Your task to perform on an android device: Open Google Chrome Image 0: 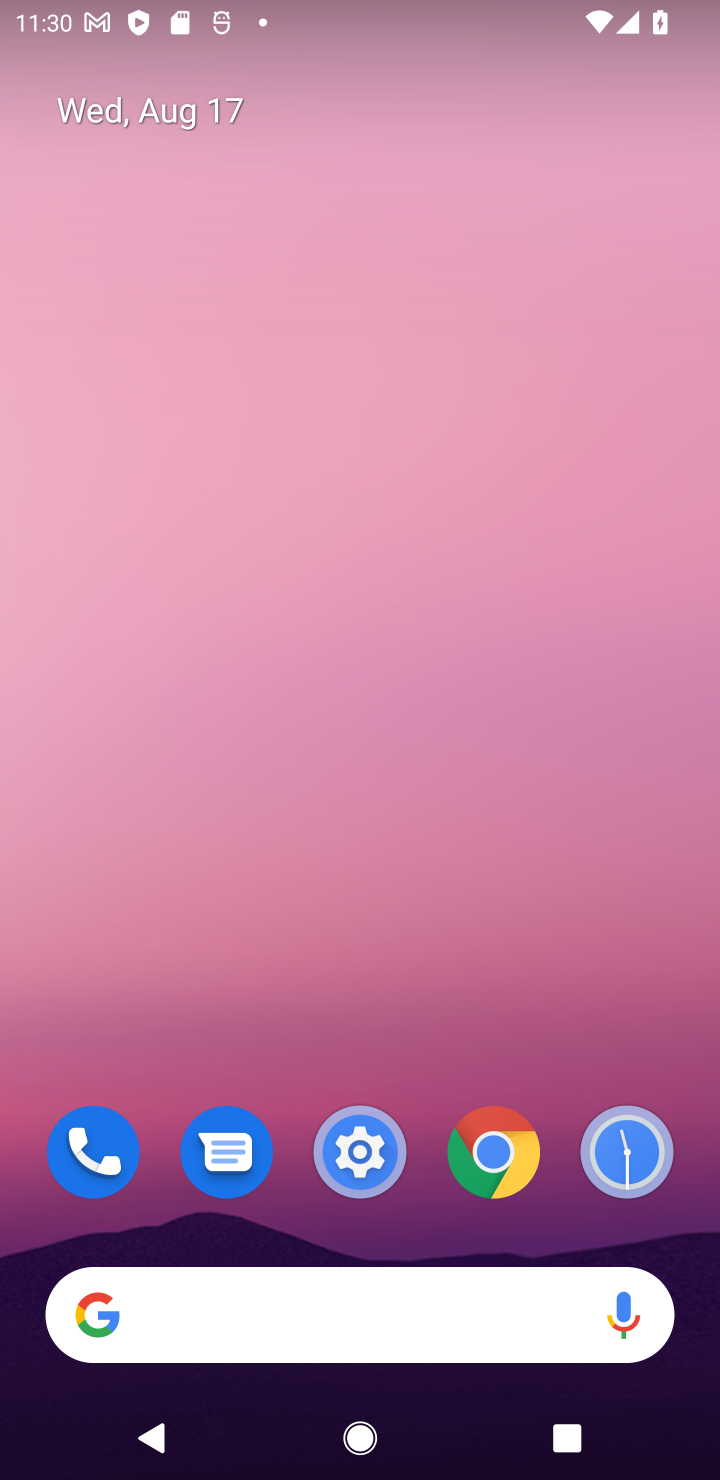
Step 0: drag from (572, 1117) to (405, 38)
Your task to perform on an android device: Open Google Chrome Image 1: 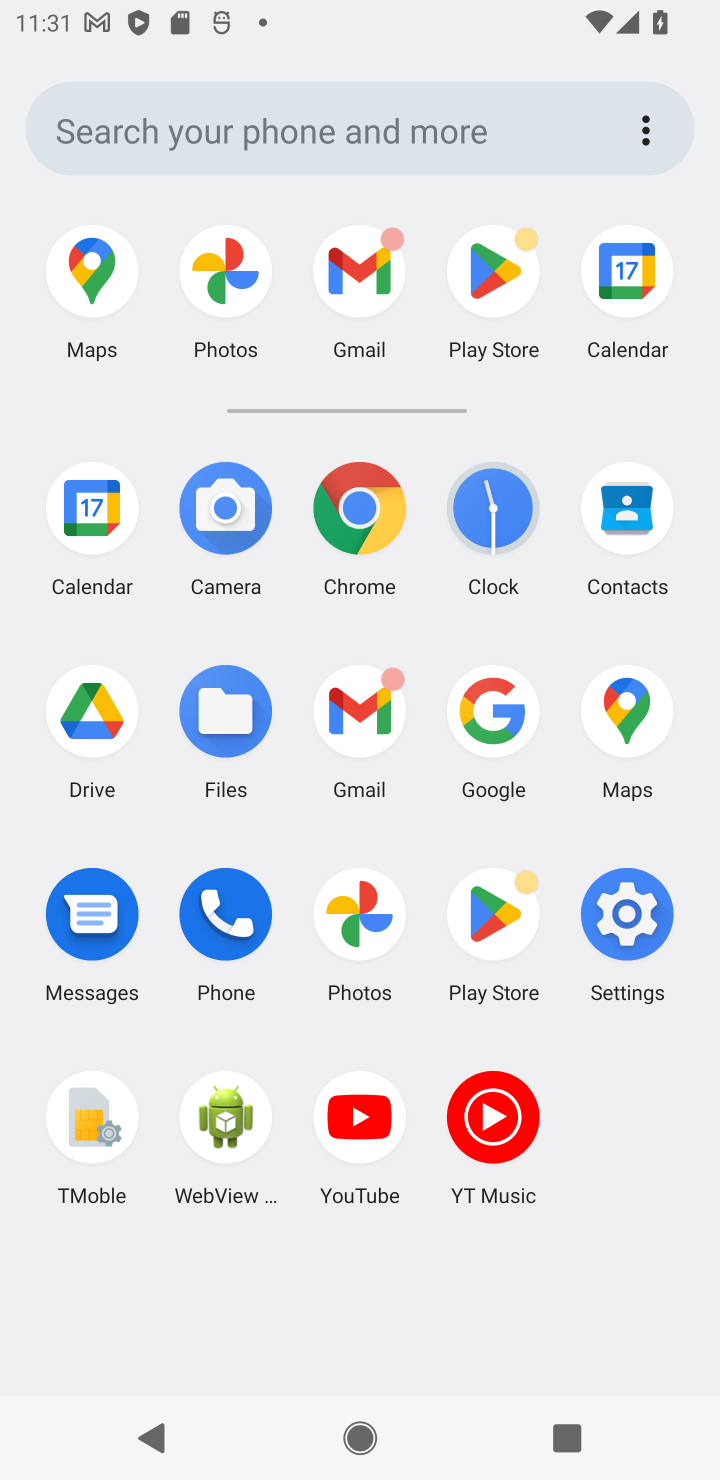
Step 1: click (367, 535)
Your task to perform on an android device: Open Google Chrome Image 2: 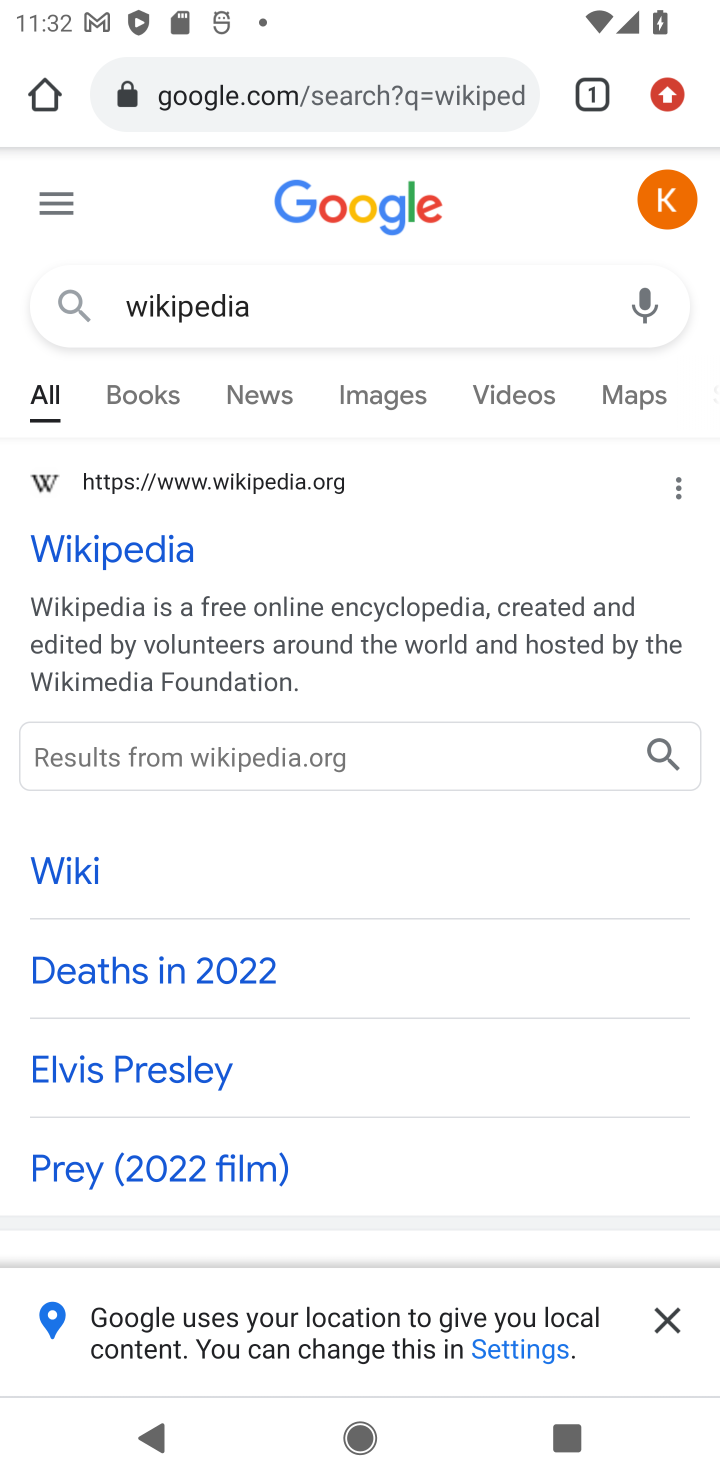
Step 2: task complete